Your task to perform on an android device: Go to battery settings Image 0: 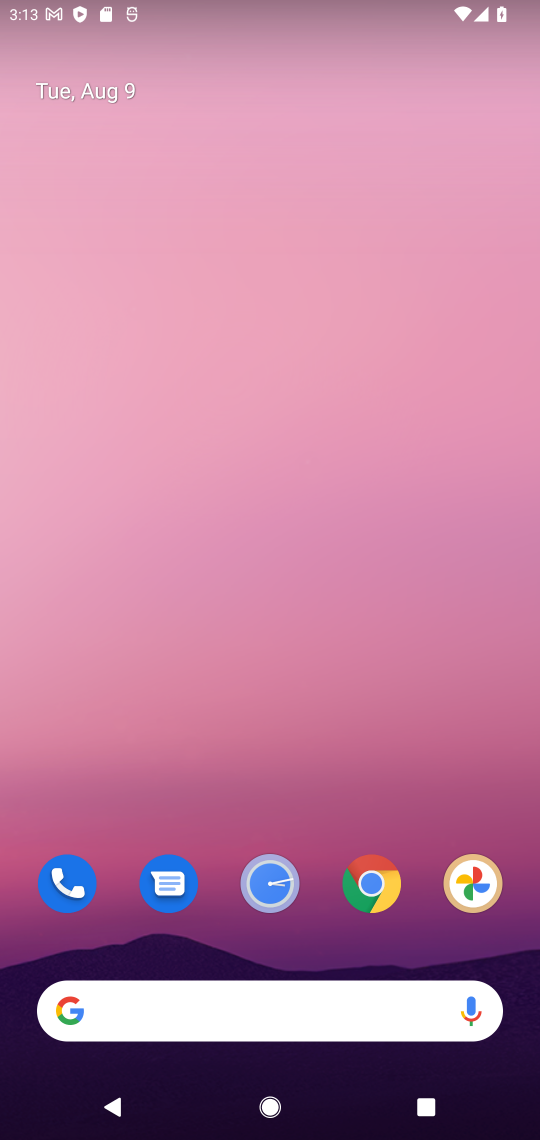
Step 0: drag from (353, 1045) to (330, 201)
Your task to perform on an android device: Go to battery settings Image 1: 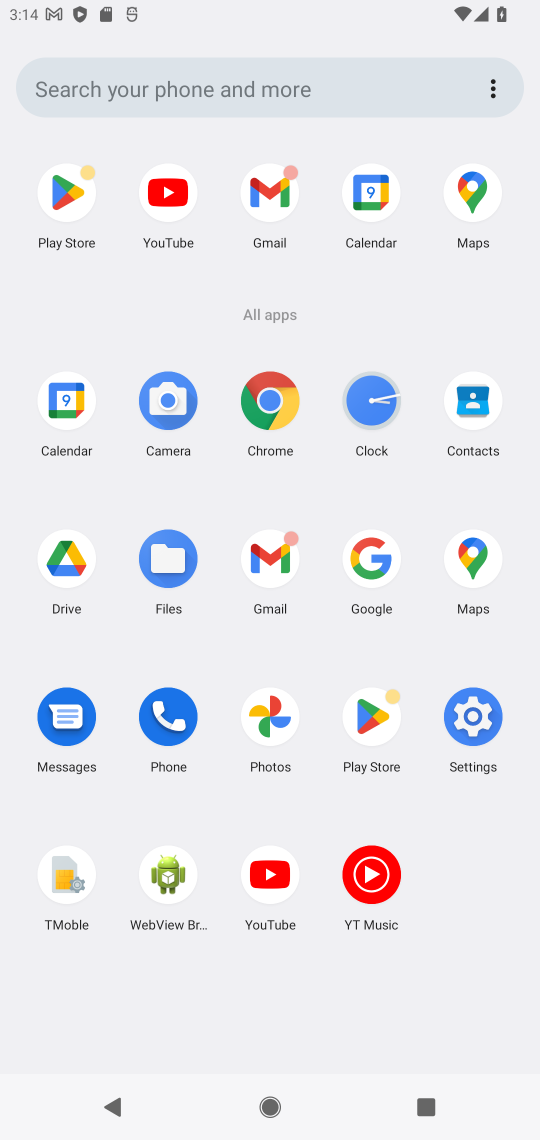
Step 1: drag from (472, 730) to (459, 971)
Your task to perform on an android device: Go to battery settings Image 2: 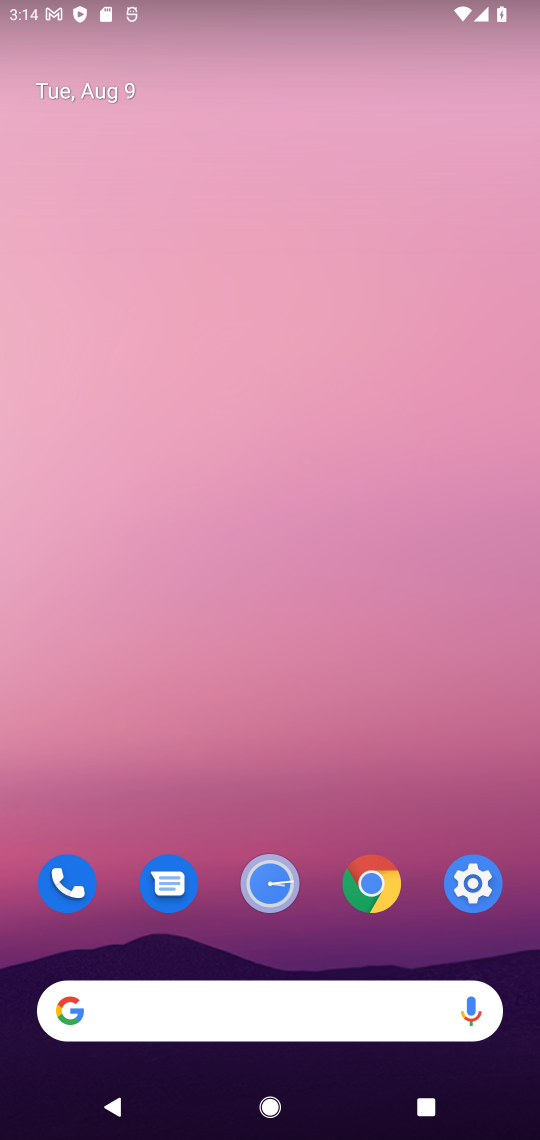
Step 2: click (477, 874)
Your task to perform on an android device: Go to battery settings Image 3: 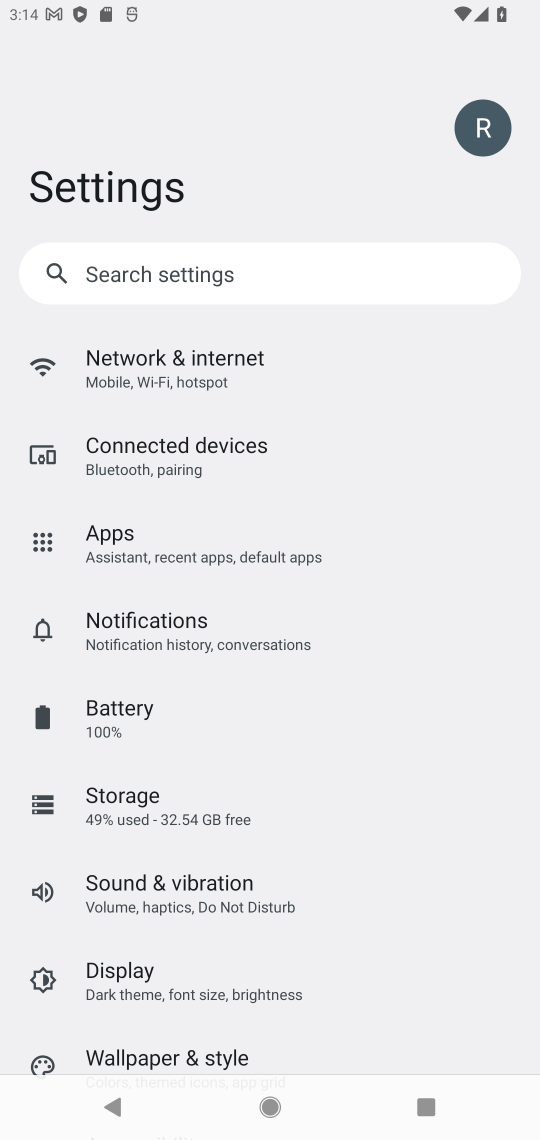
Step 3: click (157, 714)
Your task to perform on an android device: Go to battery settings Image 4: 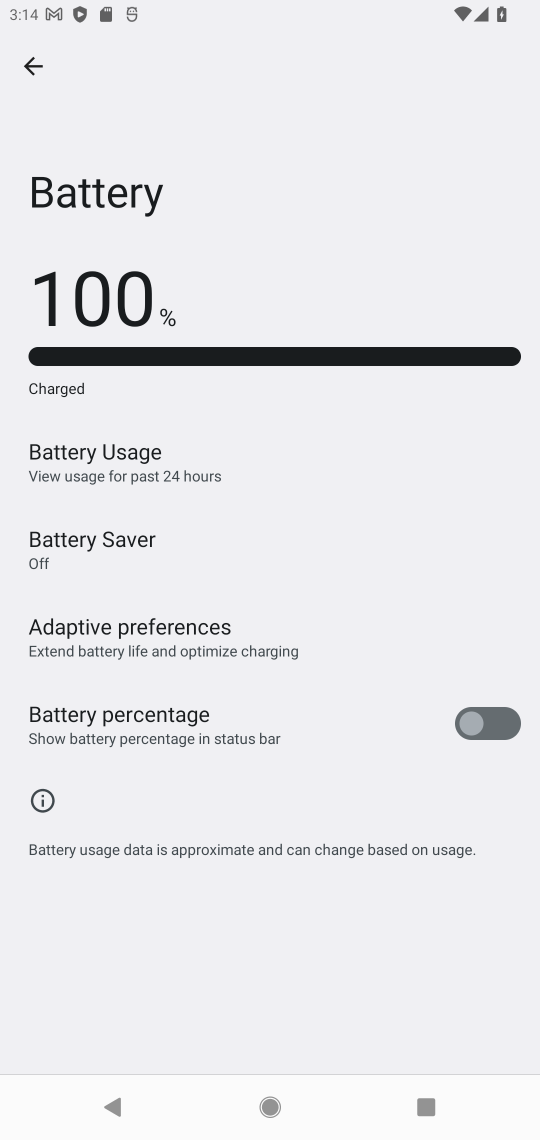
Step 4: task complete